Your task to perform on an android device: Open calendar and show me the fourth week of next month Image 0: 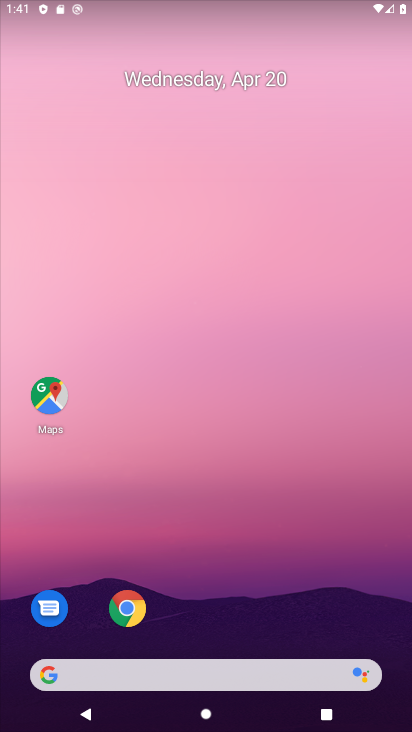
Step 0: drag from (283, 714) to (343, 14)
Your task to perform on an android device: Open calendar and show me the fourth week of next month Image 1: 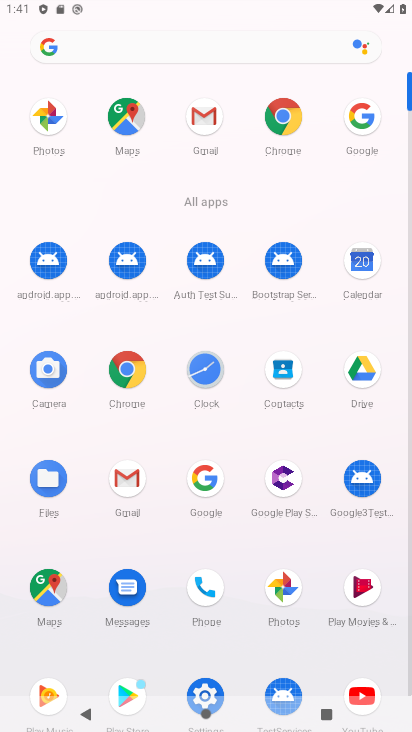
Step 1: click (362, 275)
Your task to perform on an android device: Open calendar and show me the fourth week of next month Image 2: 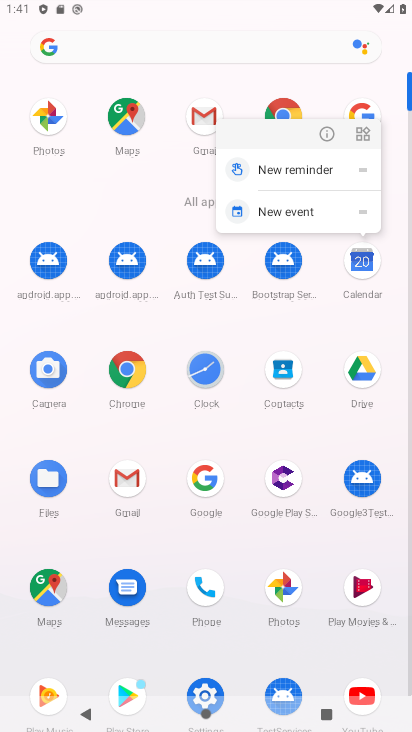
Step 2: click (362, 275)
Your task to perform on an android device: Open calendar and show me the fourth week of next month Image 3: 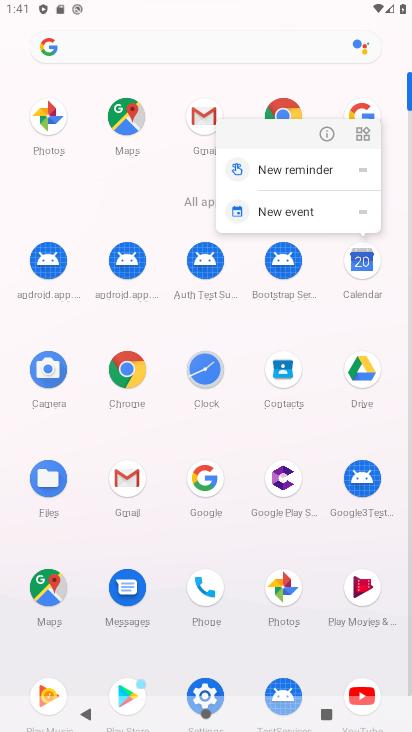
Step 3: click (362, 275)
Your task to perform on an android device: Open calendar and show me the fourth week of next month Image 4: 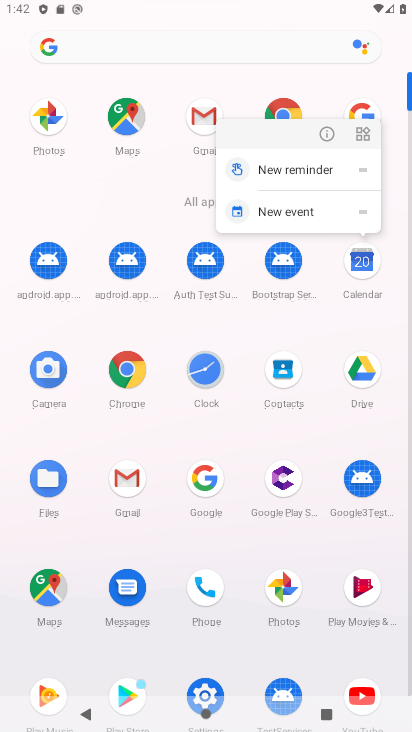
Step 4: click (362, 275)
Your task to perform on an android device: Open calendar and show me the fourth week of next month Image 5: 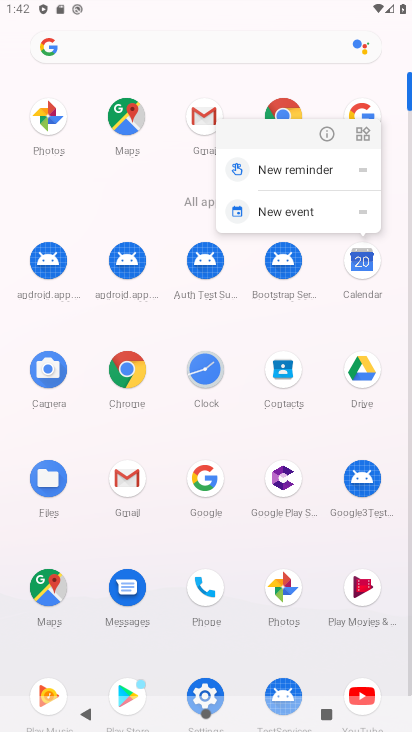
Step 5: click (362, 275)
Your task to perform on an android device: Open calendar and show me the fourth week of next month Image 6: 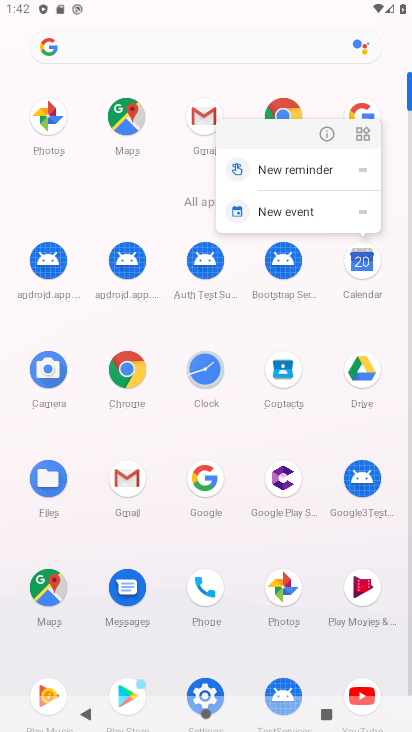
Step 6: click (362, 275)
Your task to perform on an android device: Open calendar and show me the fourth week of next month Image 7: 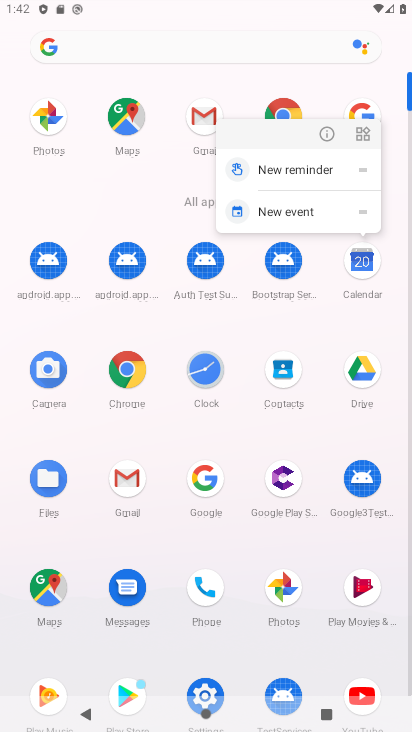
Step 7: click (362, 275)
Your task to perform on an android device: Open calendar and show me the fourth week of next month Image 8: 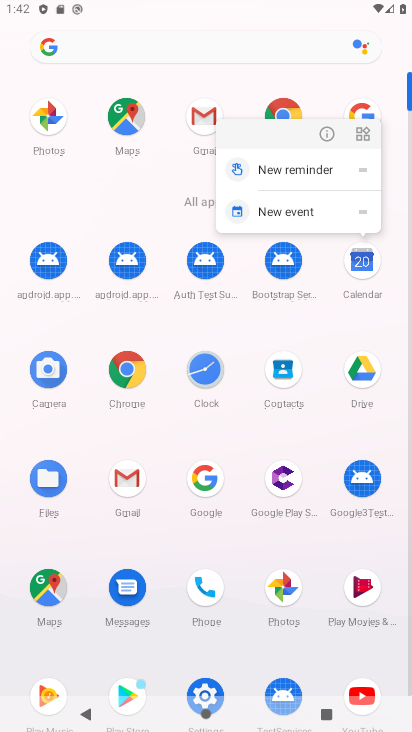
Step 8: click (362, 275)
Your task to perform on an android device: Open calendar and show me the fourth week of next month Image 9: 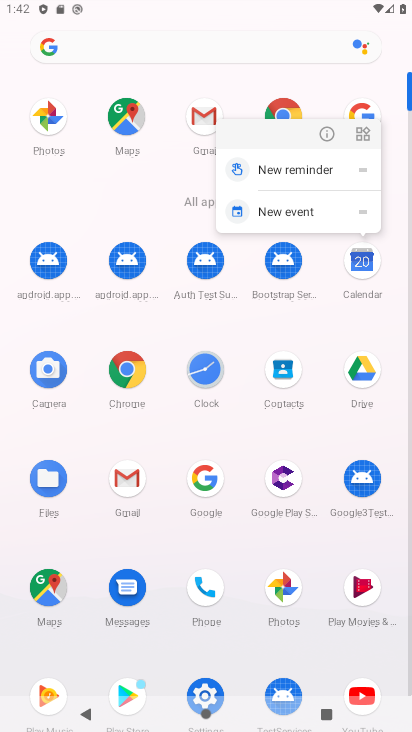
Step 9: click (362, 275)
Your task to perform on an android device: Open calendar and show me the fourth week of next month Image 10: 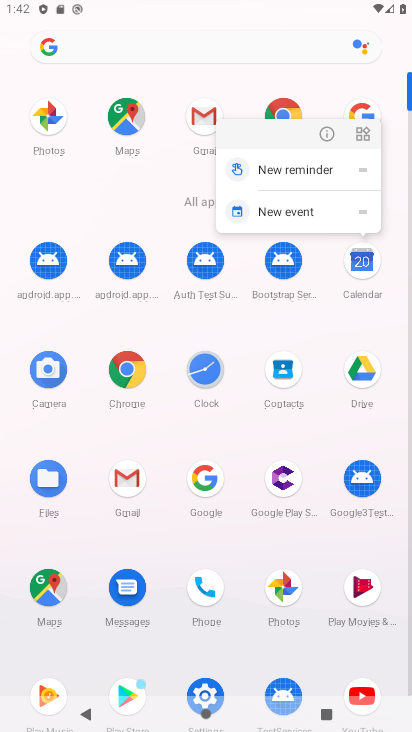
Step 10: click (362, 262)
Your task to perform on an android device: Open calendar and show me the fourth week of next month Image 11: 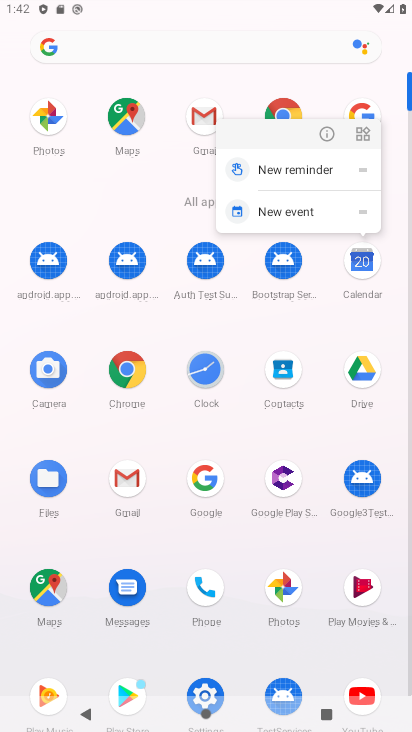
Step 11: click (362, 262)
Your task to perform on an android device: Open calendar and show me the fourth week of next month Image 12: 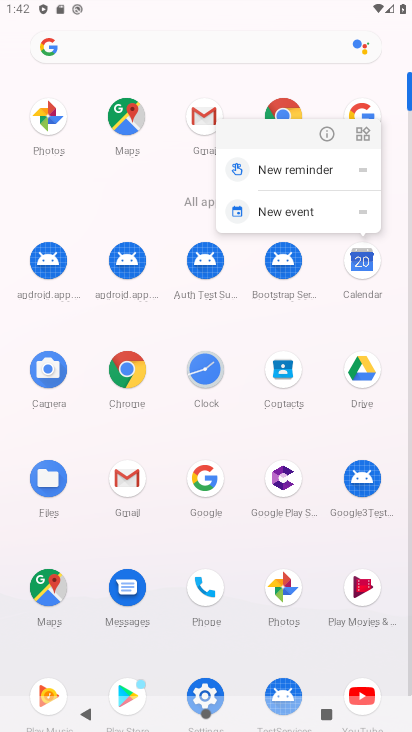
Step 12: click (362, 262)
Your task to perform on an android device: Open calendar and show me the fourth week of next month Image 13: 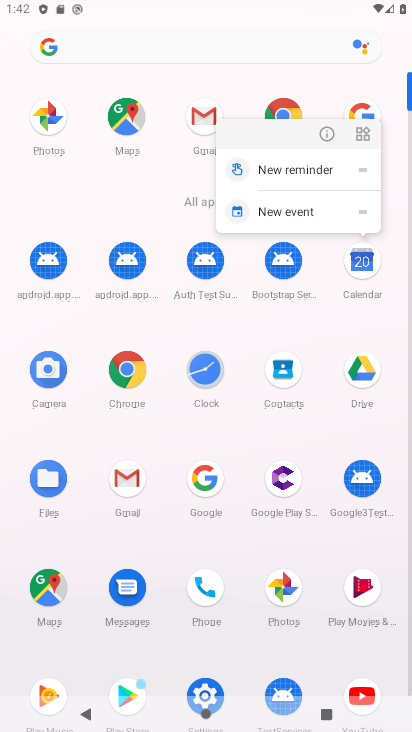
Step 13: click (362, 262)
Your task to perform on an android device: Open calendar and show me the fourth week of next month Image 14: 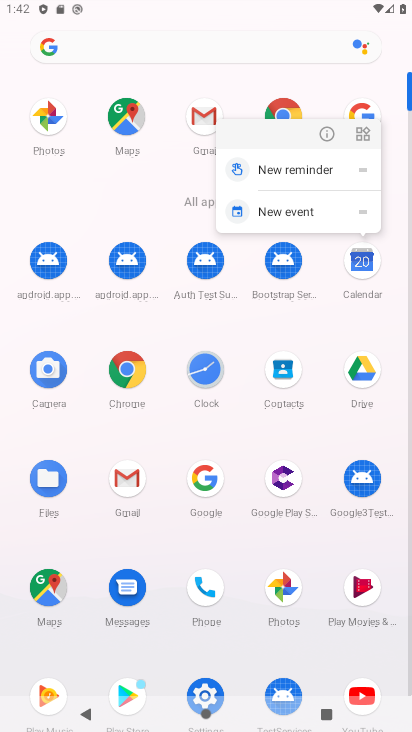
Step 14: click (362, 262)
Your task to perform on an android device: Open calendar and show me the fourth week of next month Image 15: 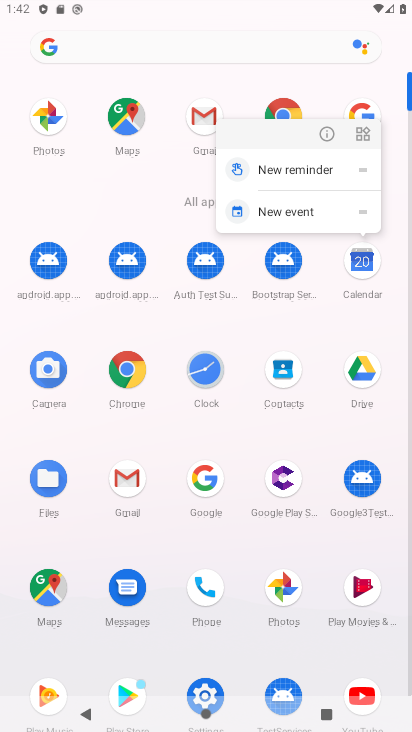
Step 15: click (362, 262)
Your task to perform on an android device: Open calendar and show me the fourth week of next month Image 16: 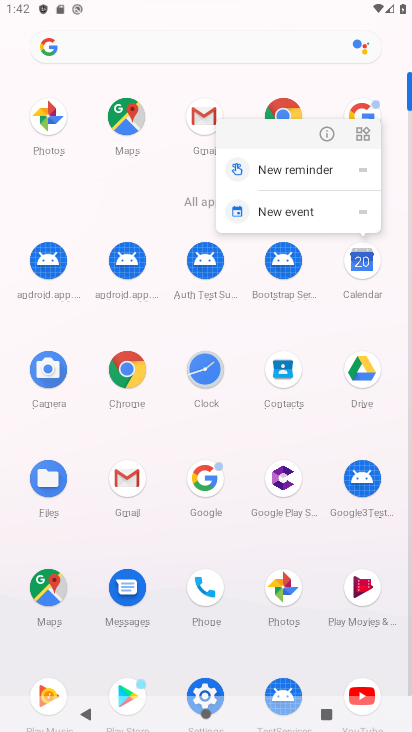
Step 16: click (362, 262)
Your task to perform on an android device: Open calendar and show me the fourth week of next month Image 17: 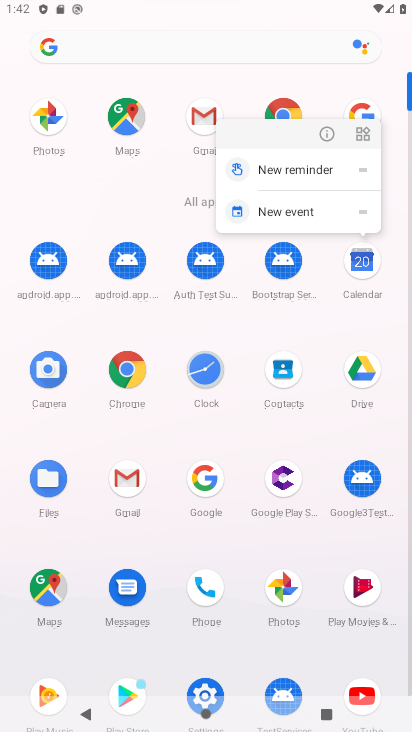
Step 17: click (362, 262)
Your task to perform on an android device: Open calendar and show me the fourth week of next month Image 18: 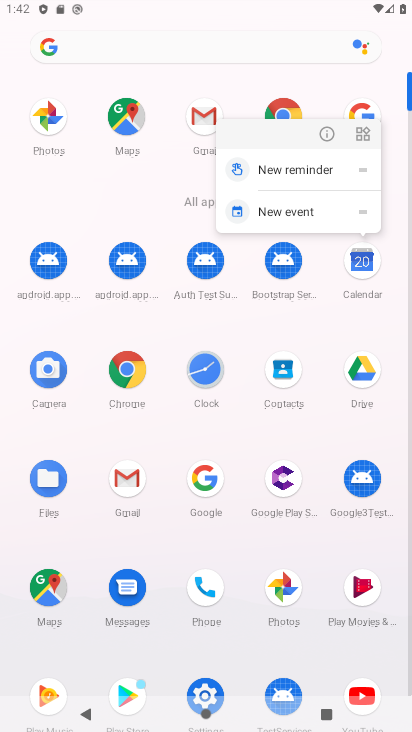
Step 18: click (362, 262)
Your task to perform on an android device: Open calendar and show me the fourth week of next month Image 19: 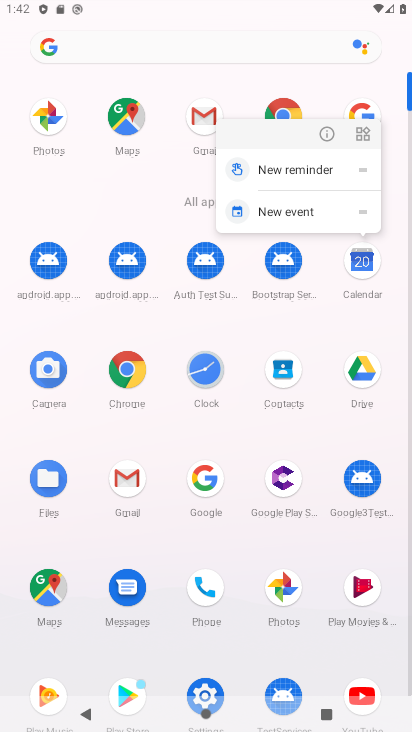
Step 19: click (362, 262)
Your task to perform on an android device: Open calendar and show me the fourth week of next month Image 20: 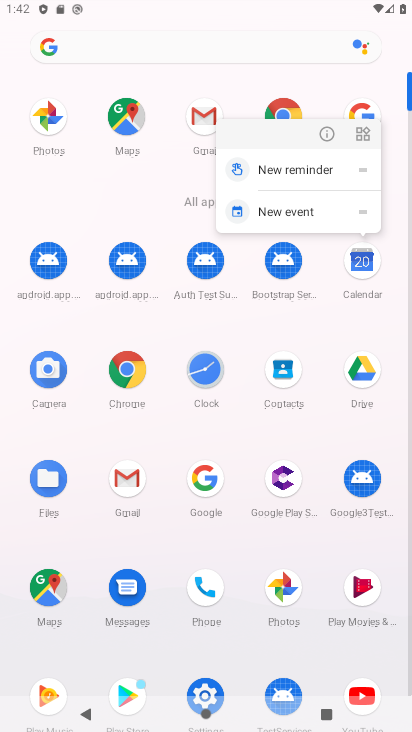
Step 20: click (362, 262)
Your task to perform on an android device: Open calendar and show me the fourth week of next month Image 21: 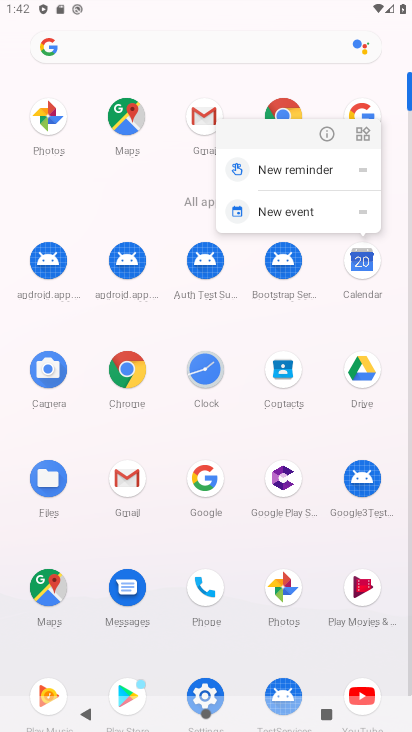
Step 21: click (362, 262)
Your task to perform on an android device: Open calendar and show me the fourth week of next month Image 22: 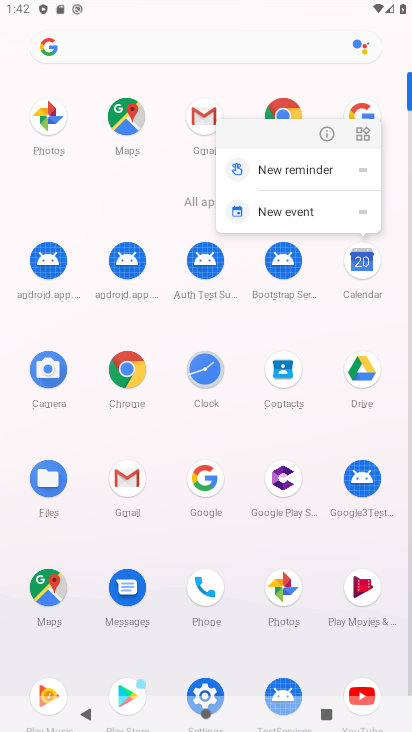
Step 22: click (362, 262)
Your task to perform on an android device: Open calendar and show me the fourth week of next month Image 23: 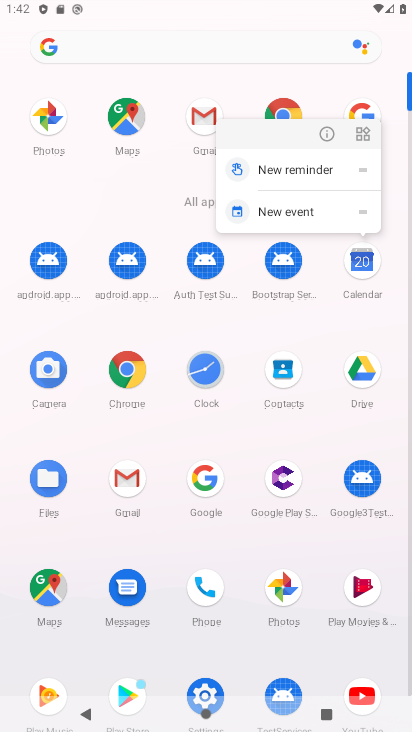
Step 23: click (362, 262)
Your task to perform on an android device: Open calendar and show me the fourth week of next month Image 24: 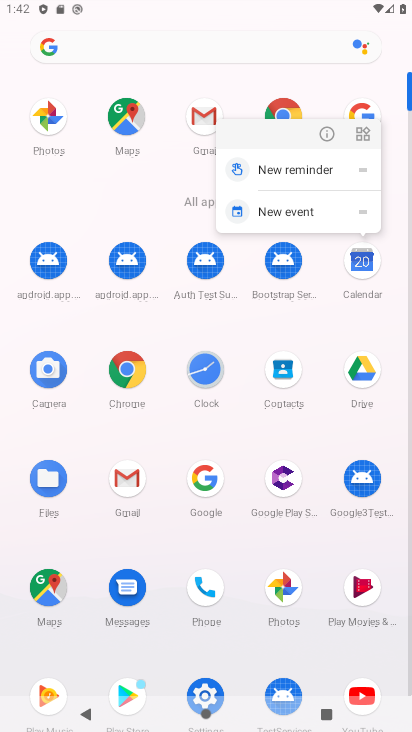
Step 24: click (362, 262)
Your task to perform on an android device: Open calendar and show me the fourth week of next month Image 25: 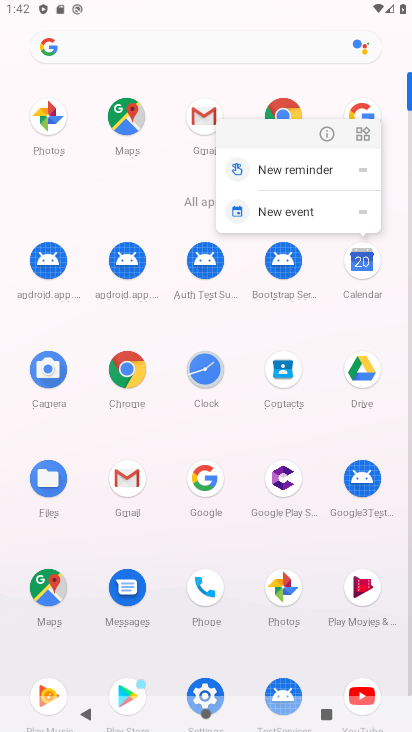
Step 25: click (362, 262)
Your task to perform on an android device: Open calendar and show me the fourth week of next month Image 26: 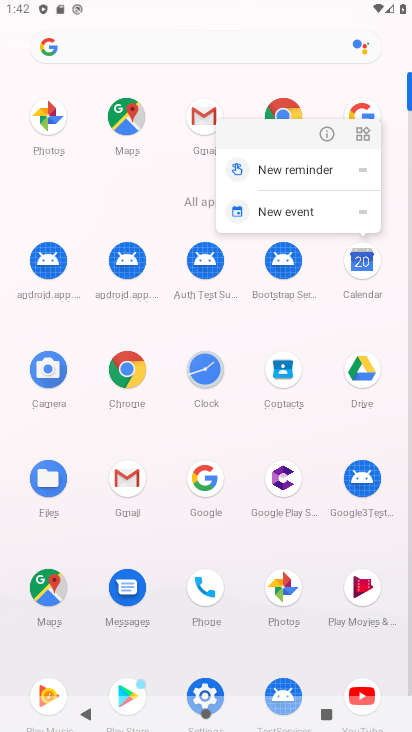
Step 26: click (362, 262)
Your task to perform on an android device: Open calendar and show me the fourth week of next month Image 27: 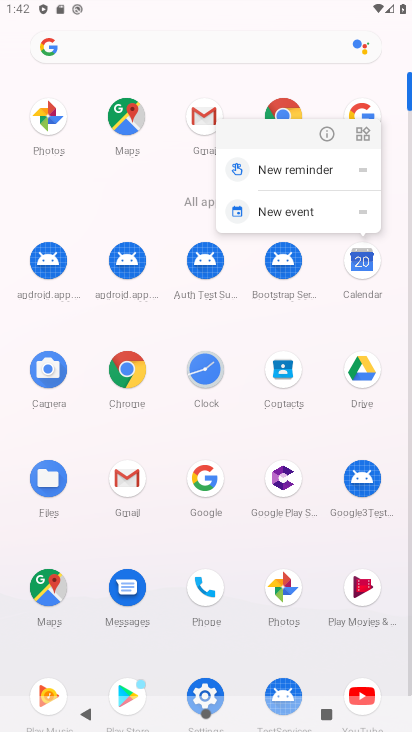
Step 27: click (362, 262)
Your task to perform on an android device: Open calendar and show me the fourth week of next month Image 28: 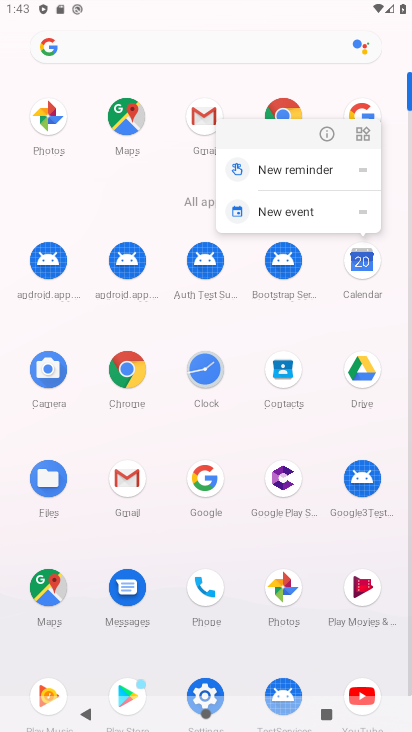
Step 28: click (356, 272)
Your task to perform on an android device: Open calendar and show me the fourth week of next month Image 29: 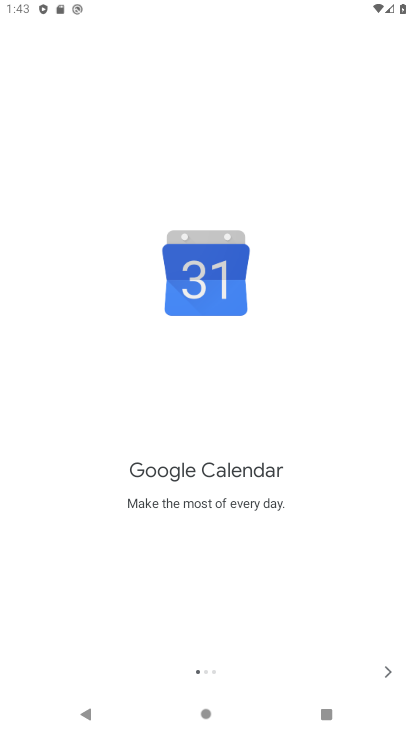
Step 29: click (381, 668)
Your task to perform on an android device: Open calendar and show me the fourth week of next month Image 30: 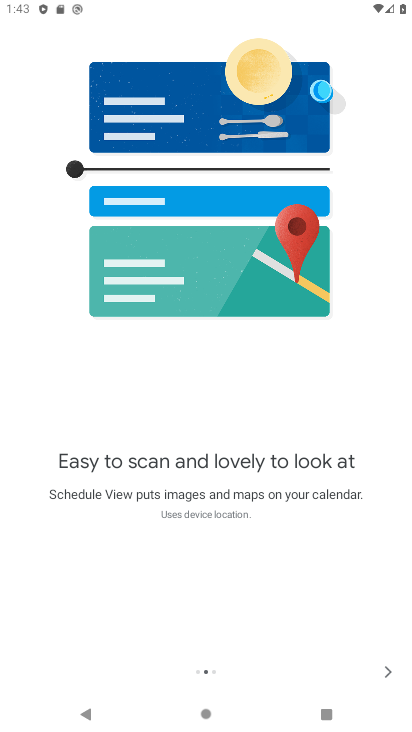
Step 30: click (384, 669)
Your task to perform on an android device: Open calendar and show me the fourth week of next month Image 31: 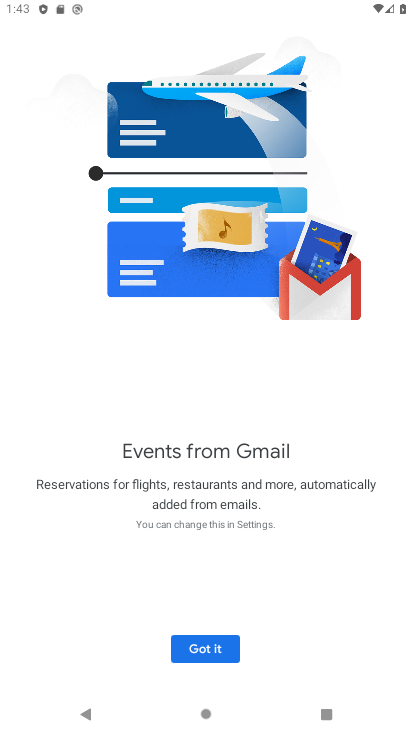
Step 31: click (211, 648)
Your task to perform on an android device: Open calendar and show me the fourth week of next month Image 32: 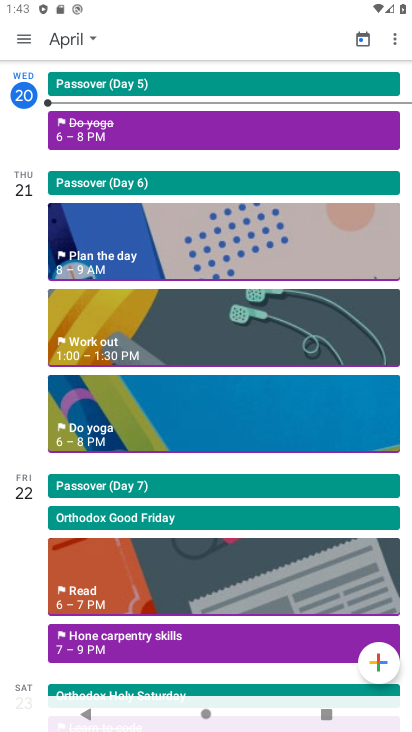
Step 32: drag from (262, 439) to (254, 337)
Your task to perform on an android device: Open calendar and show me the fourth week of next month Image 33: 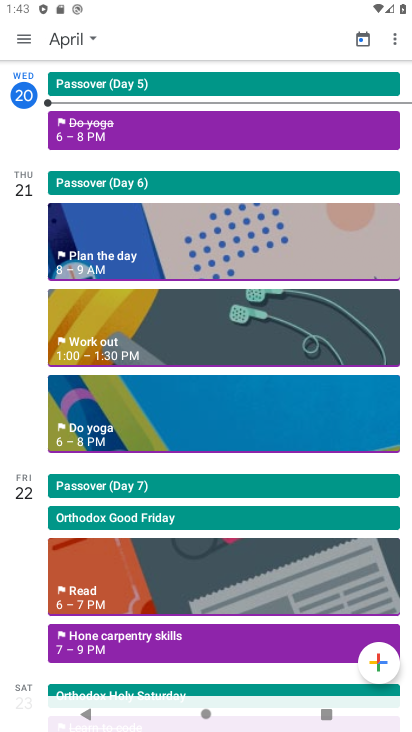
Step 33: drag from (251, 518) to (259, 90)
Your task to perform on an android device: Open calendar and show me the fourth week of next month Image 34: 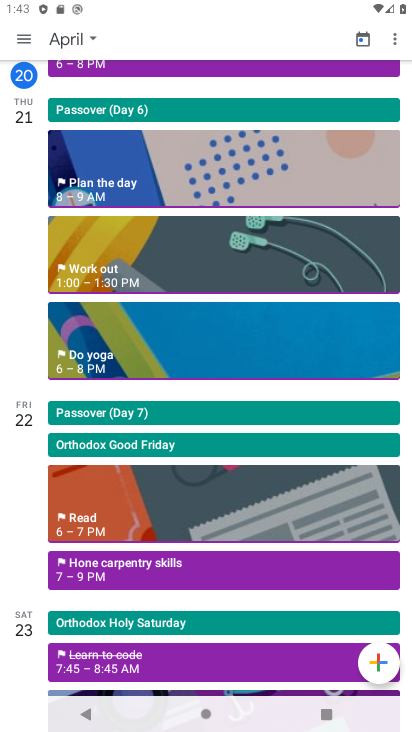
Step 34: drag from (176, 613) to (169, 212)
Your task to perform on an android device: Open calendar and show me the fourth week of next month Image 35: 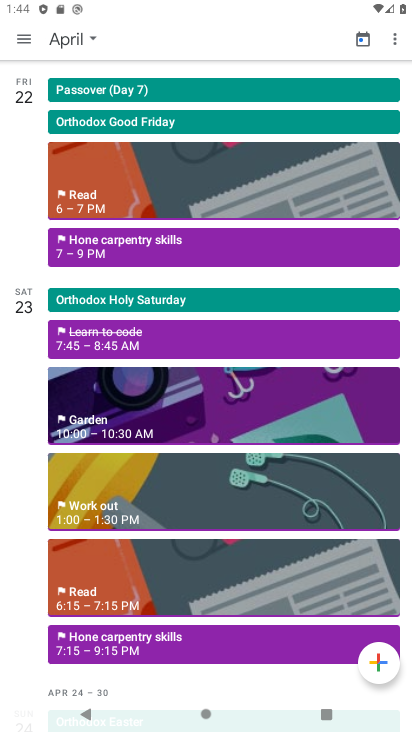
Step 35: click (90, 45)
Your task to perform on an android device: Open calendar and show me the fourth week of next month Image 36: 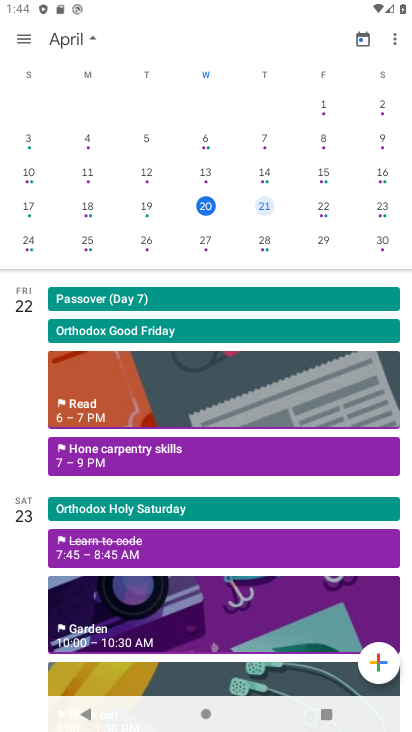
Step 36: drag from (353, 203) to (16, 157)
Your task to perform on an android device: Open calendar and show me the fourth week of next month Image 37: 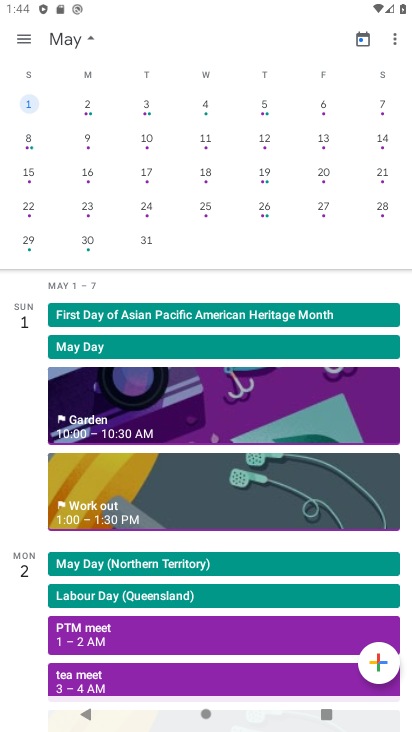
Step 37: drag from (182, 657) to (194, 285)
Your task to perform on an android device: Open calendar and show me the fourth week of next month Image 38: 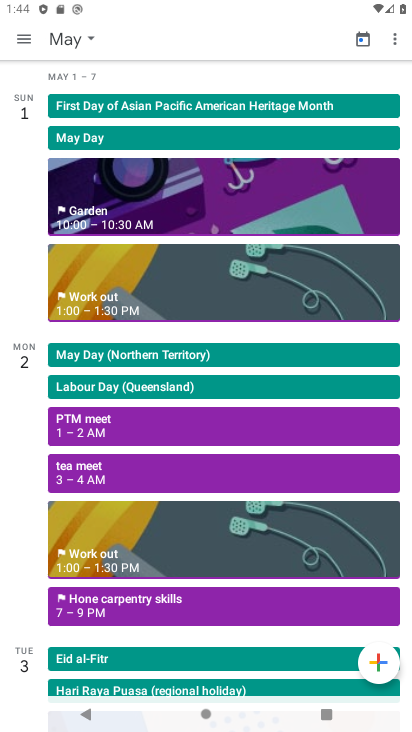
Step 38: click (88, 40)
Your task to perform on an android device: Open calendar and show me the fourth week of next month Image 39: 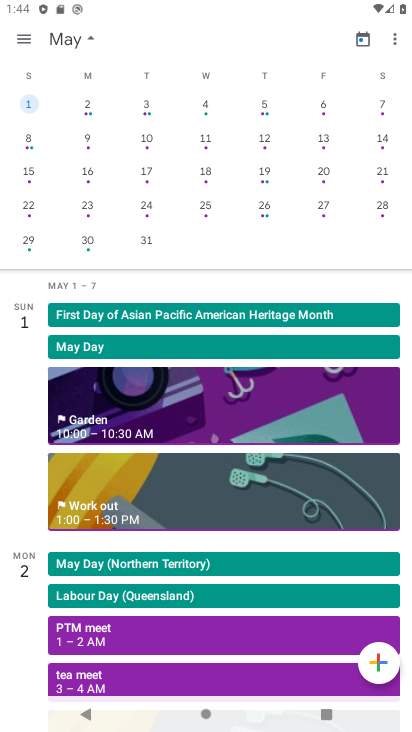
Step 39: click (82, 206)
Your task to perform on an android device: Open calendar and show me the fourth week of next month Image 40: 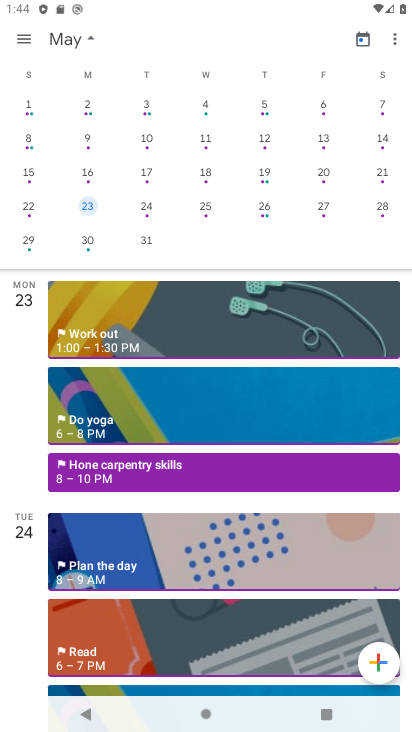
Step 40: task complete